Your task to perform on an android device: Do I have any events today? Image 0: 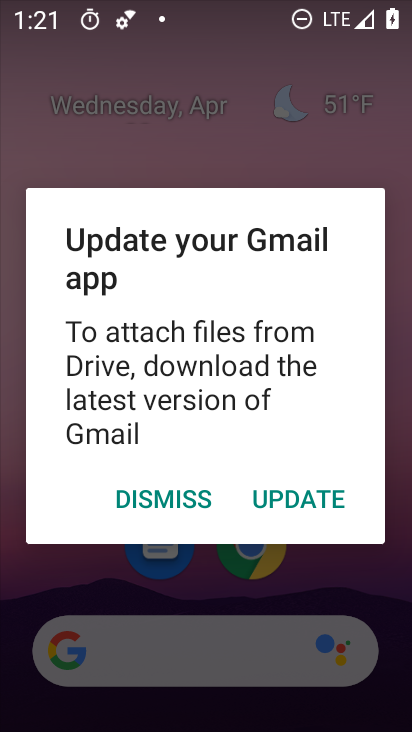
Step 0: press home button
Your task to perform on an android device: Do I have any events today? Image 1: 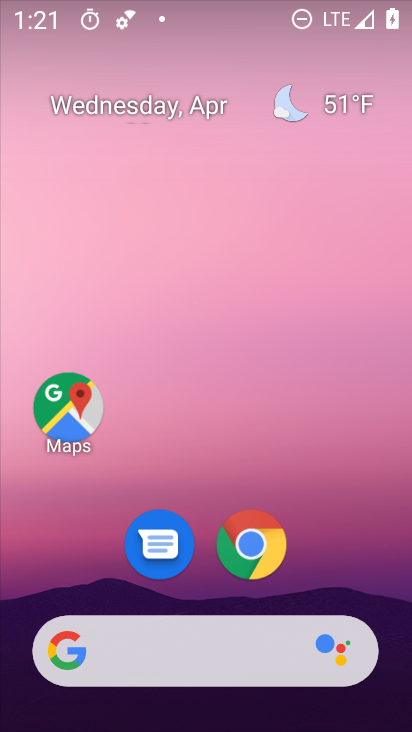
Step 1: drag from (371, 530) to (358, 195)
Your task to perform on an android device: Do I have any events today? Image 2: 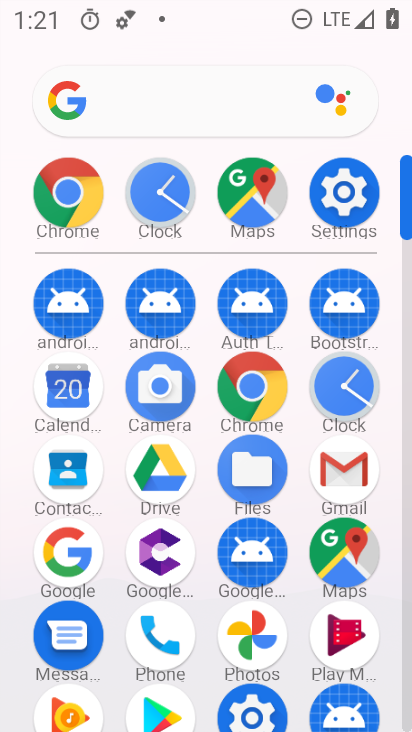
Step 2: click (66, 402)
Your task to perform on an android device: Do I have any events today? Image 3: 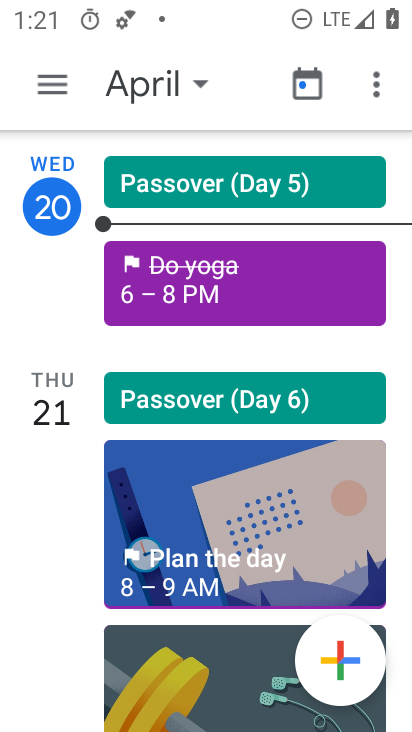
Step 3: click (231, 297)
Your task to perform on an android device: Do I have any events today? Image 4: 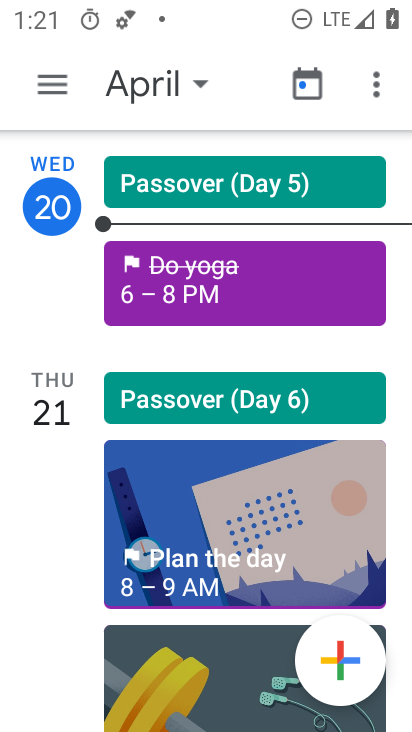
Step 4: click (254, 291)
Your task to perform on an android device: Do I have any events today? Image 5: 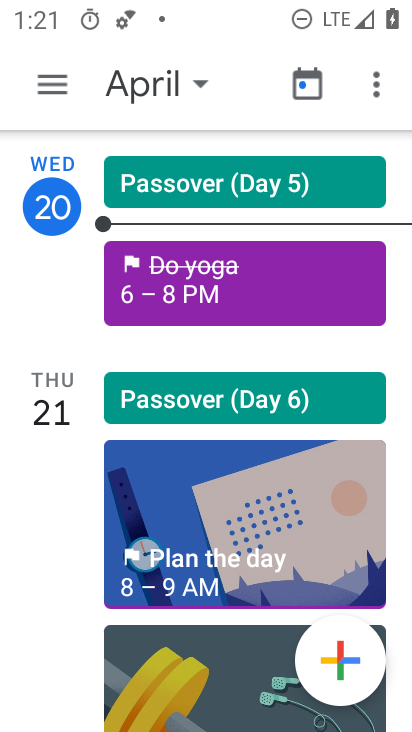
Step 5: task complete